Your task to perform on an android device: Go to calendar. Show me events next week Image 0: 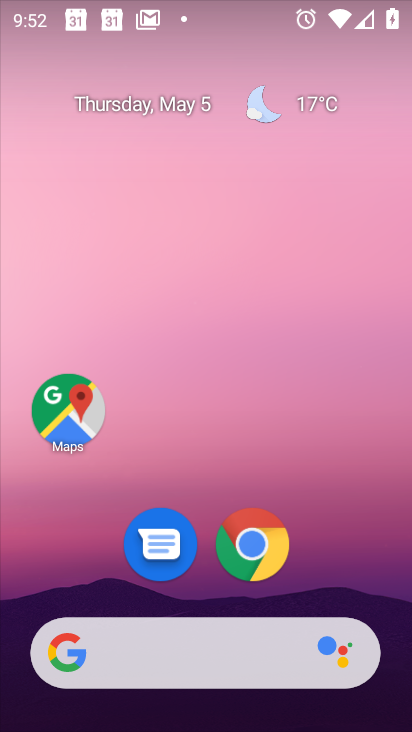
Step 0: drag from (314, 536) to (304, 0)
Your task to perform on an android device: Go to calendar. Show me events next week Image 1: 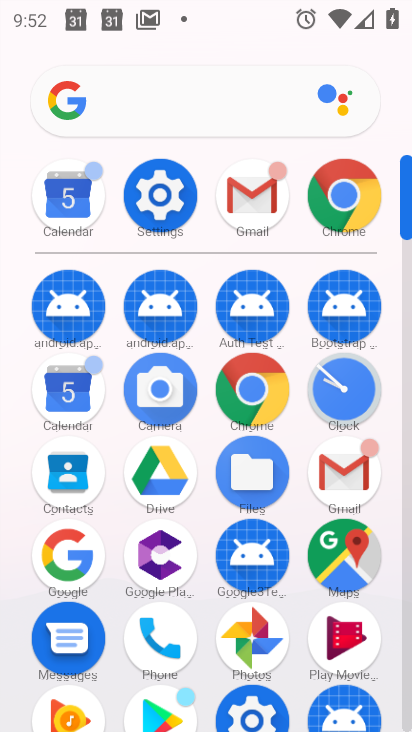
Step 1: click (73, 415)
Your task to perform on an android device: Go to calendar. Show me events next week Image 2: 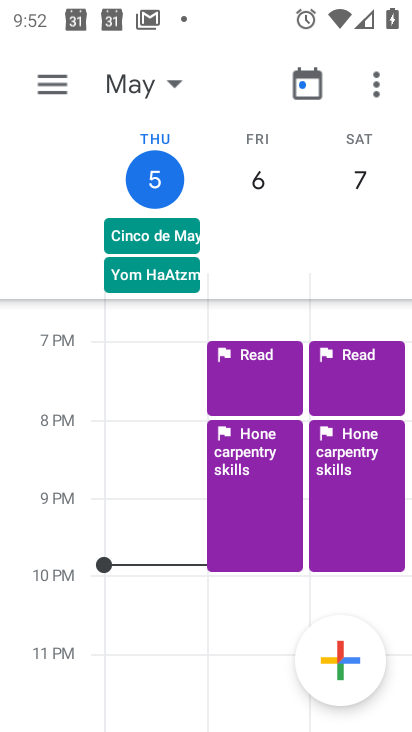
Step 2: click (139, 88)
Your task to perform on an android device: Go to calendar. Show me events next week Image 3: 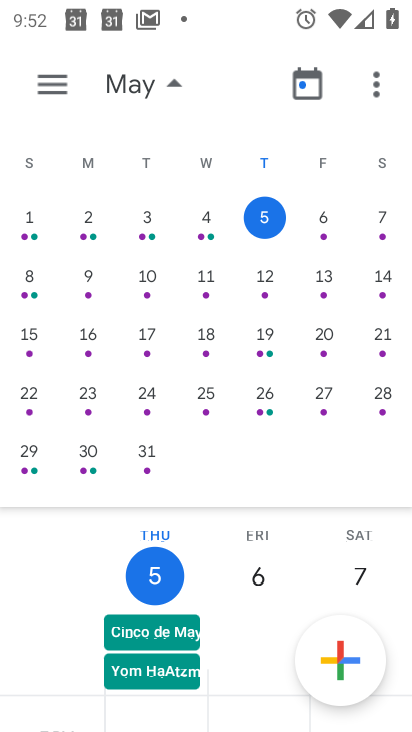
Step 3: drag from (385, 388) to (160, 419)
Your task to perform on an android device: Go to calendar. Show me events next week Image 4: 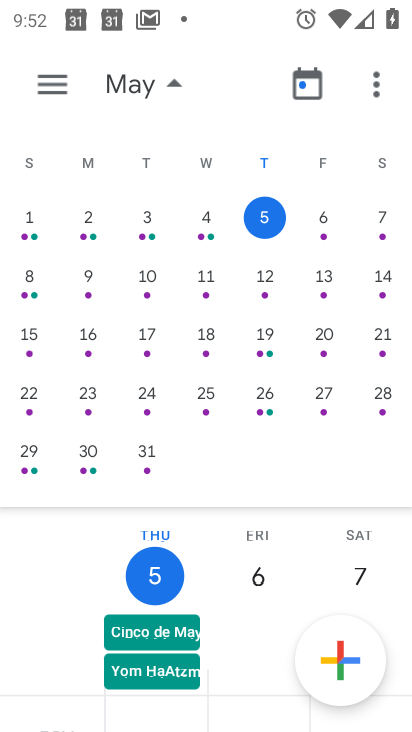
Step 4: click (194, 287)
Your task to perform on an android device: Go to calendar. Show me events next week Image 5: 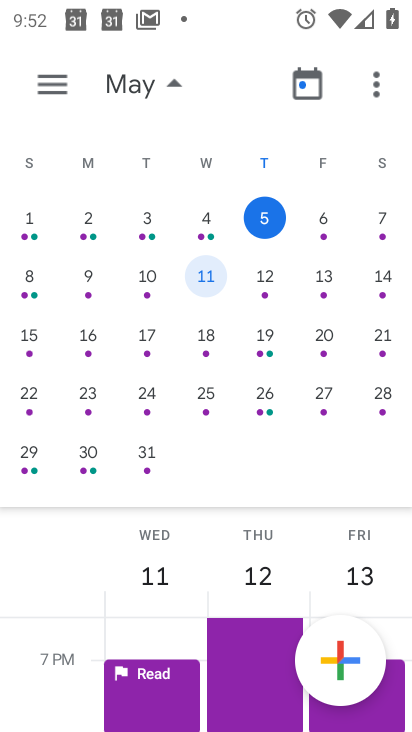
Step 5: task complete